Your task to perform on an android device: turn off priority inbox in the gmail app Image 0: 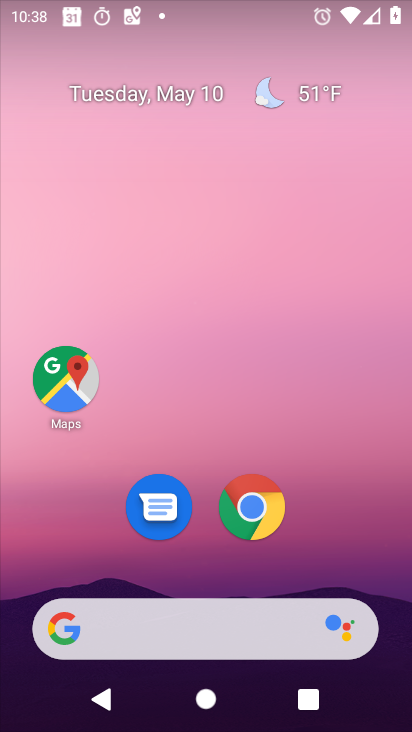
Step 0: drag from (182, 546) to (210, 132)
Your task to perform on an android device: turn off priority inbox in the gmail app Image 1: 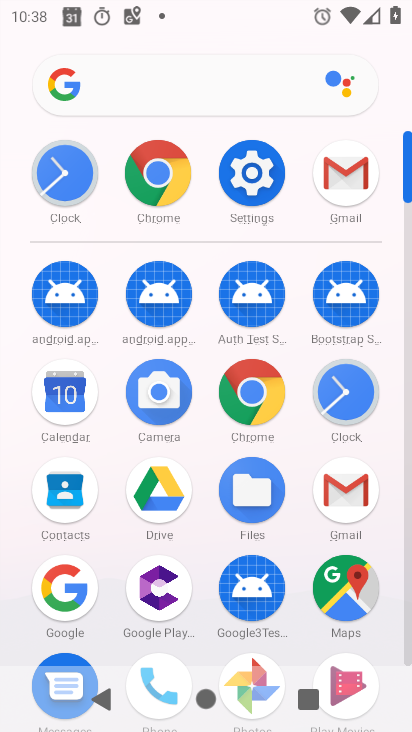
Step 1: click (346, 177)
Your task to perform on an android device: turn off priority inbox in the gmail app Image 2: 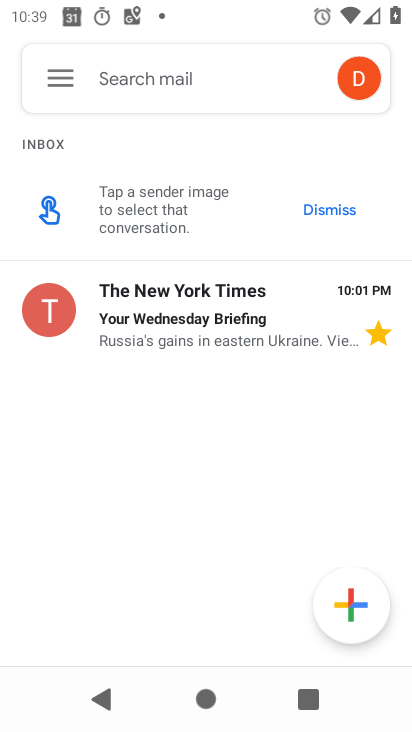
Step 2: click (56, 67)
Your task to perform on an android device: turn off priority inbox in the gmail app Image 3: 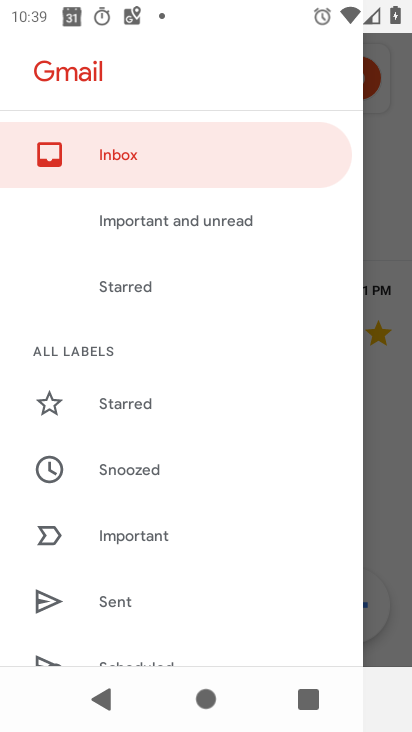
Step 3: drag from (165, 647) to (163, 253)
Your task to perform on an android device: turn off priority inbox in the gmail app Image 4: 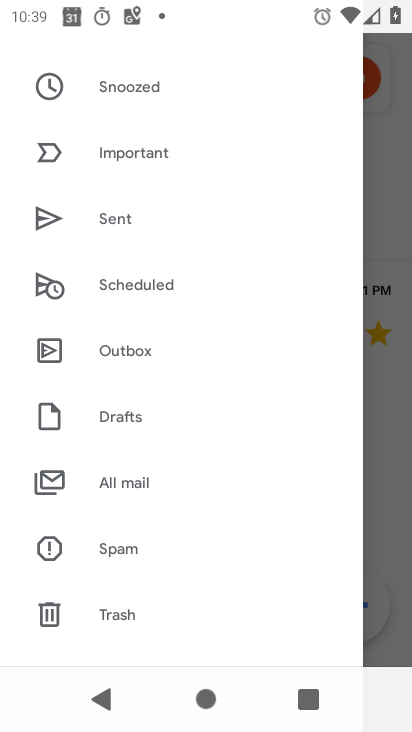
Step 4: drag from (105, 603) to (145, 207)
Your task to perform on an android device: turn off priority inbox in the gmail app Image 5: 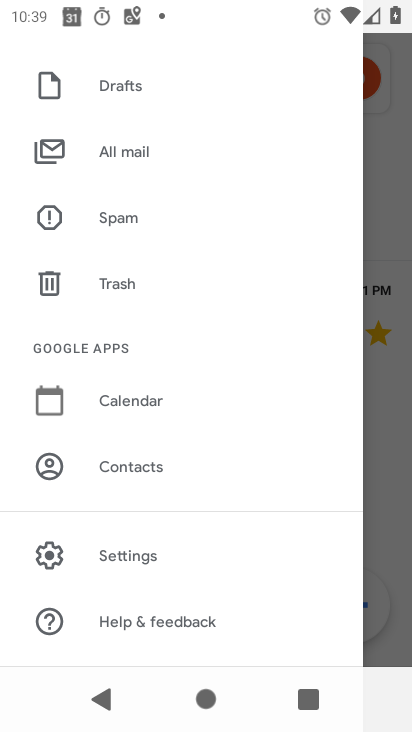
Step 5: click (121, 559)
Your task to perform on an android device: turn off priority inbox in the gmail app Image 6: 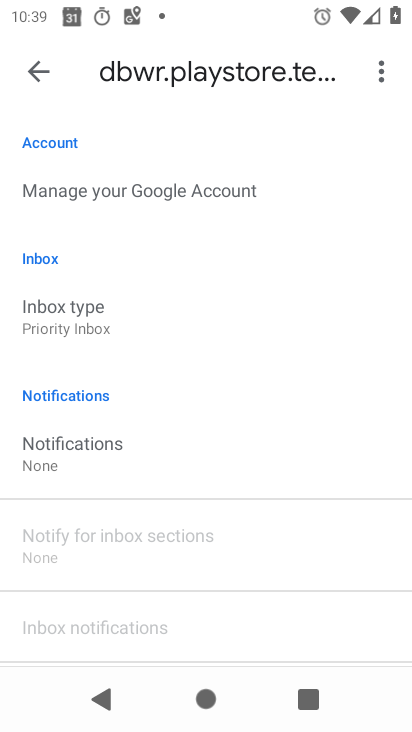
Step 6: click (126, 332)
Your task to perform on an android device: turn off priority inbox in the gmail app Image 7: 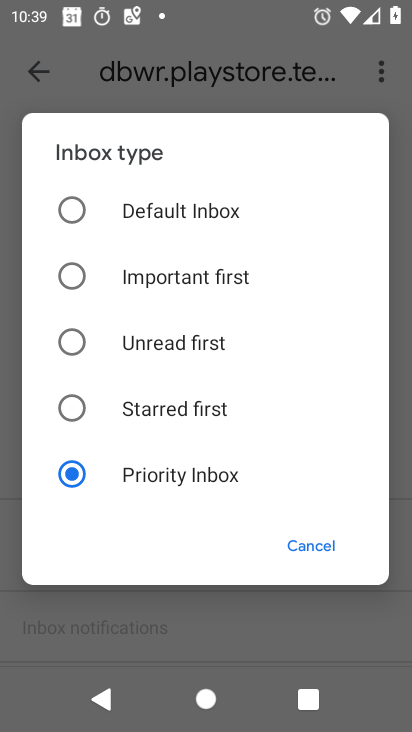
Step 7: click (166, 360)
Your task to perform on an android device: turn off priority inbox in the gmail app Image 8: 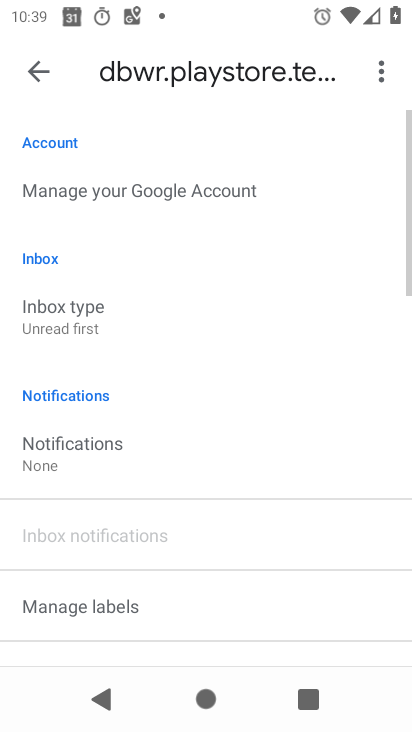
Step 8: task complete